Your task to perform on an android device: Clear the shopping cart on target.com. Add "asus zenbook" to the cart on target.com, then select checkout. Image 0: 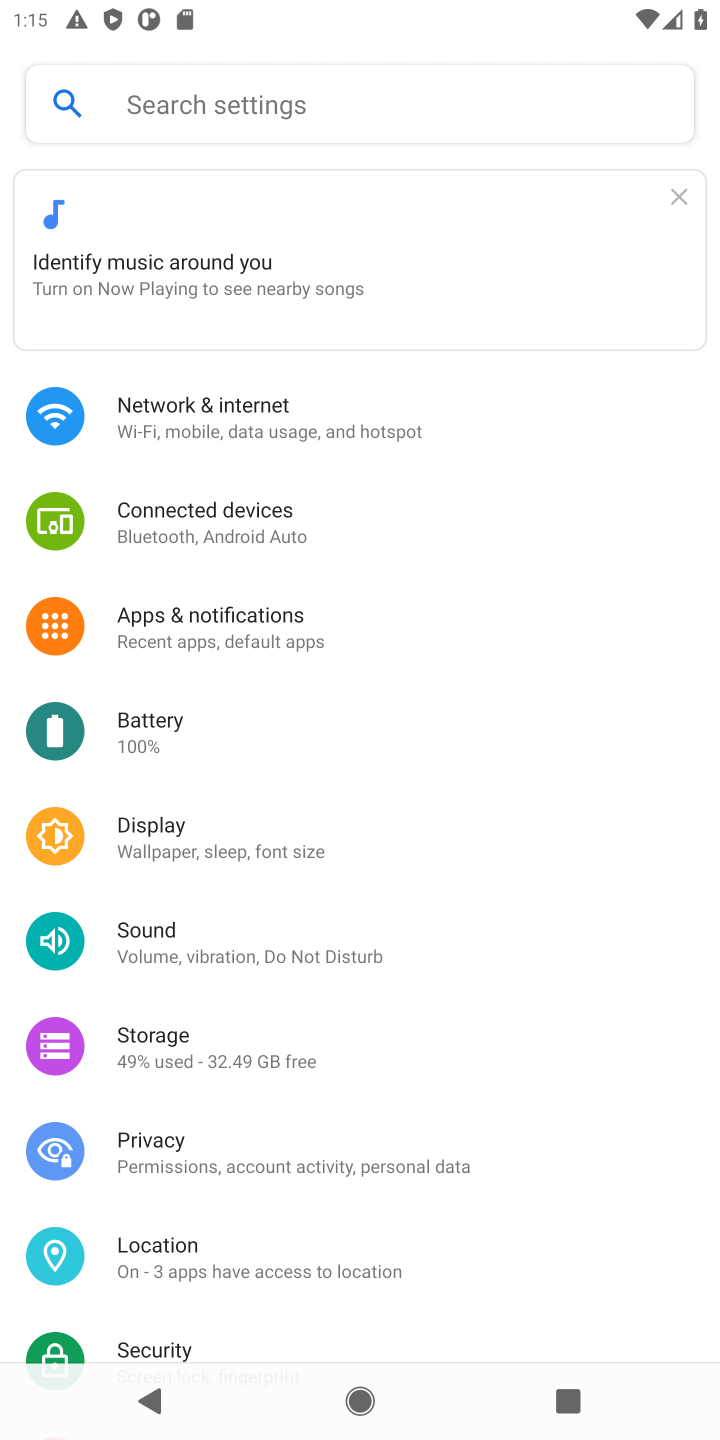
Step 0: press home button
Your task to perform on an android device: Clear the shopping cart on target.com. Add "asus zenbook" to the cart on target.com, then select checkout. Image 1: 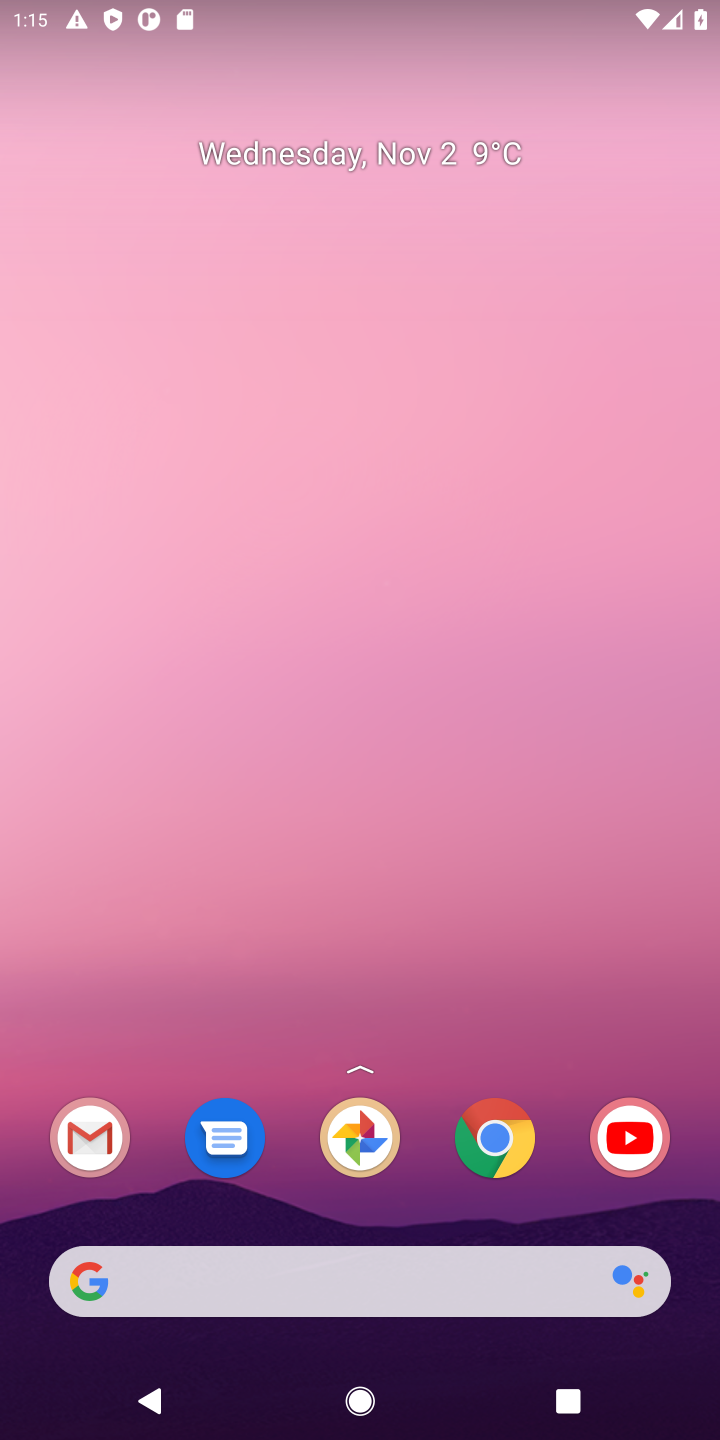
Step 1: click (512, 1144)
Your task to perform on an android device: Clear the shopping cart on target.com. Add "asus zenbook" to the cart on target.com, then select checkout. Image 2: 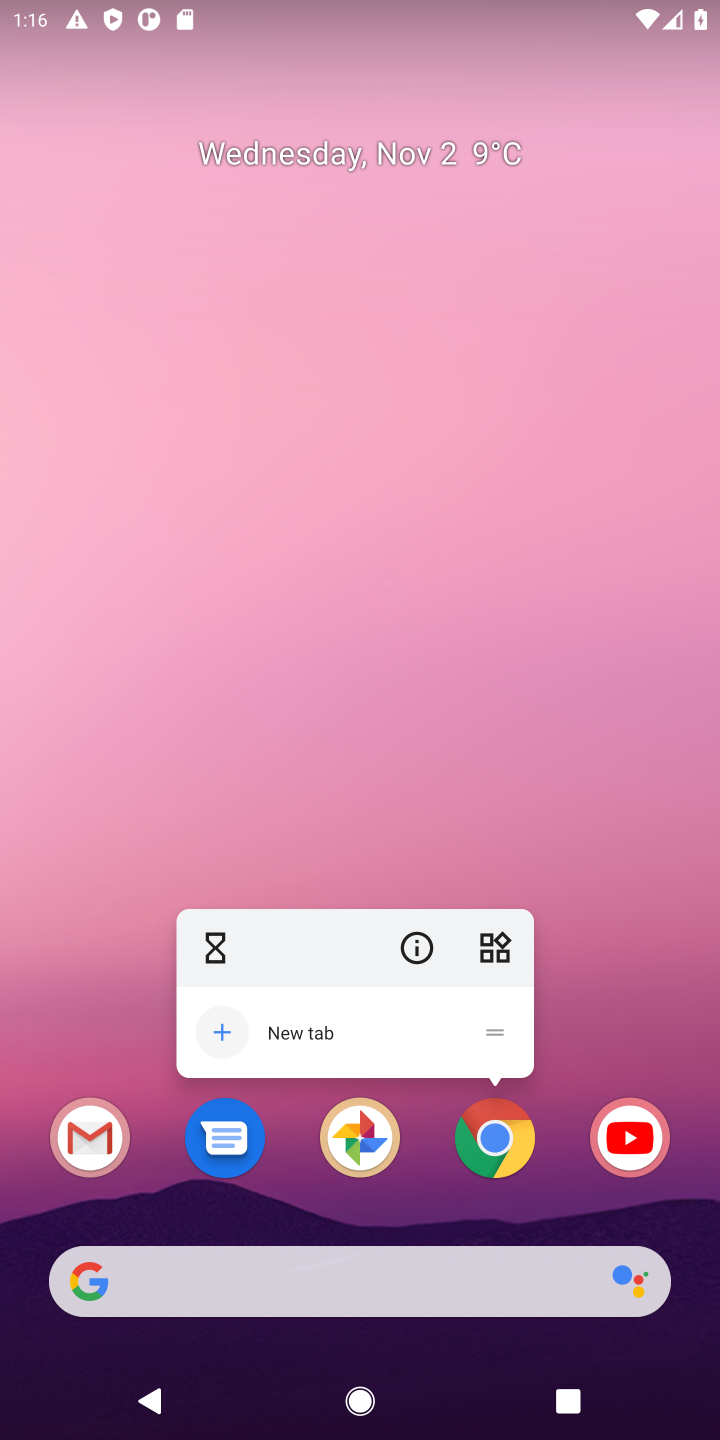
Step 2: click (498, 1158)
Your task to perform on an android device: Clear the shopping cart on target.com. Add "asus zenbook" to the cart on target.com, then select checkout. Image 3: 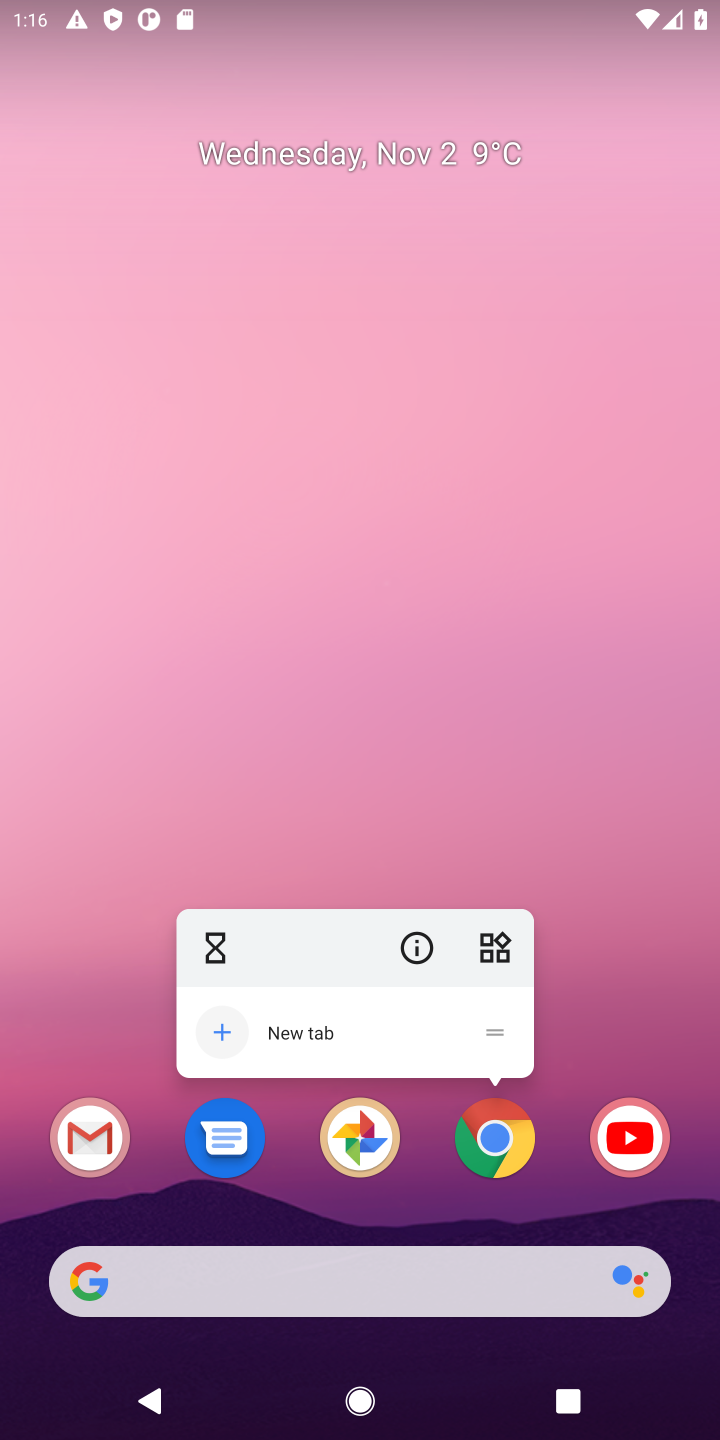
Step 3: click (498, 1124)
Your task to perform on an android device: Clear the shopping cart on target.com. Add "asus zenbook" to the cart on target.com, then select checkout. Image 4: 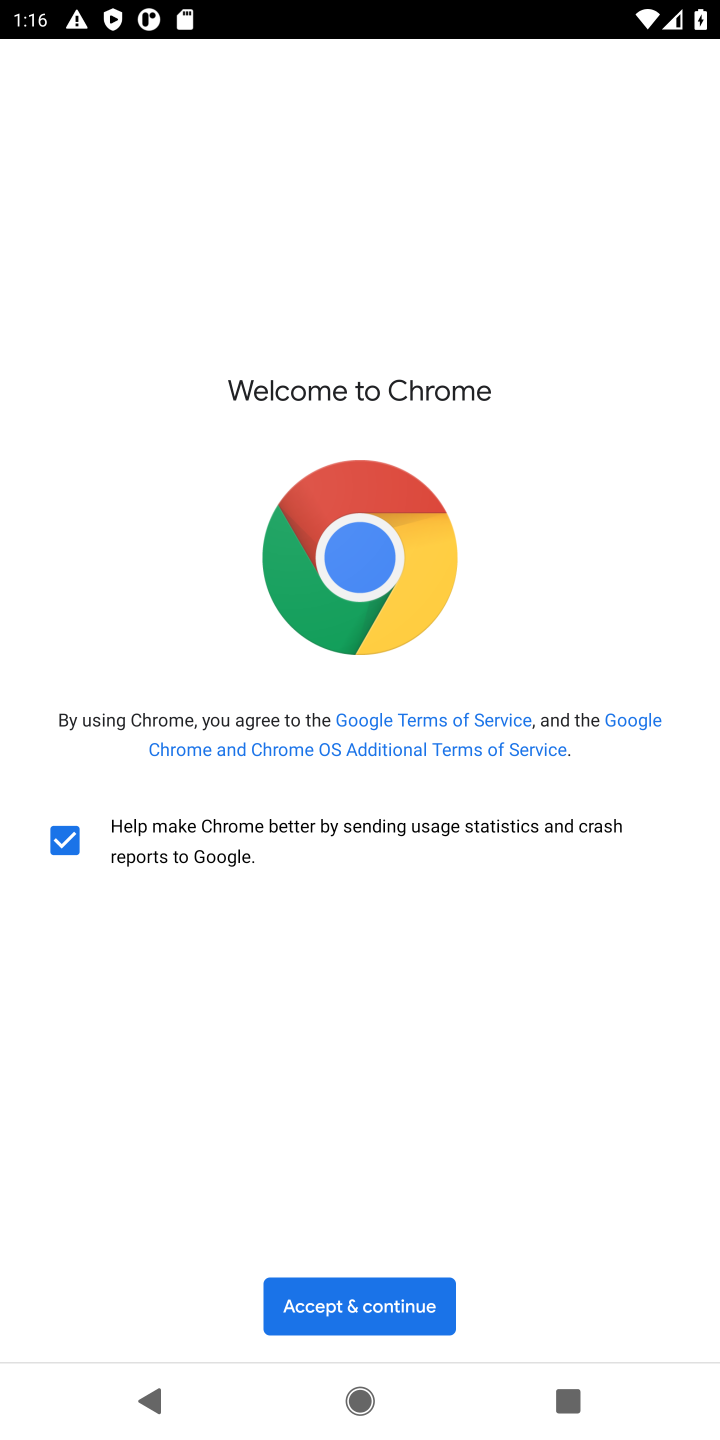
Step 4: click (332, 1291)
Your task to perform on an android device: Clear the shopping cart on target.com. Add "asus zenbook" to the cart on target.com, then select checkout. Image 5: 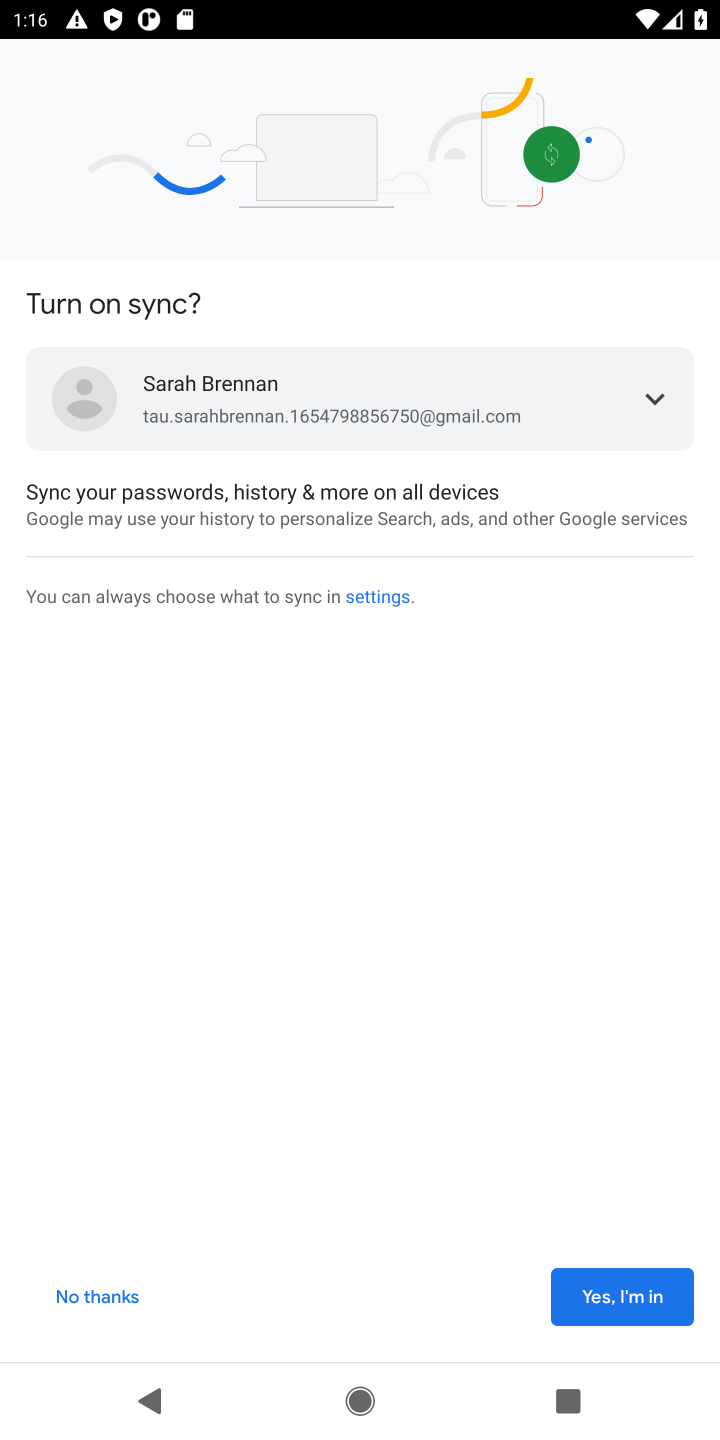
Step 5: click (621, 1301)
Your task to perform on an android device: Clear the shopping cart on target.com. Add "asus zenbook" to the cart on target.com, then select checkout. Image 6: 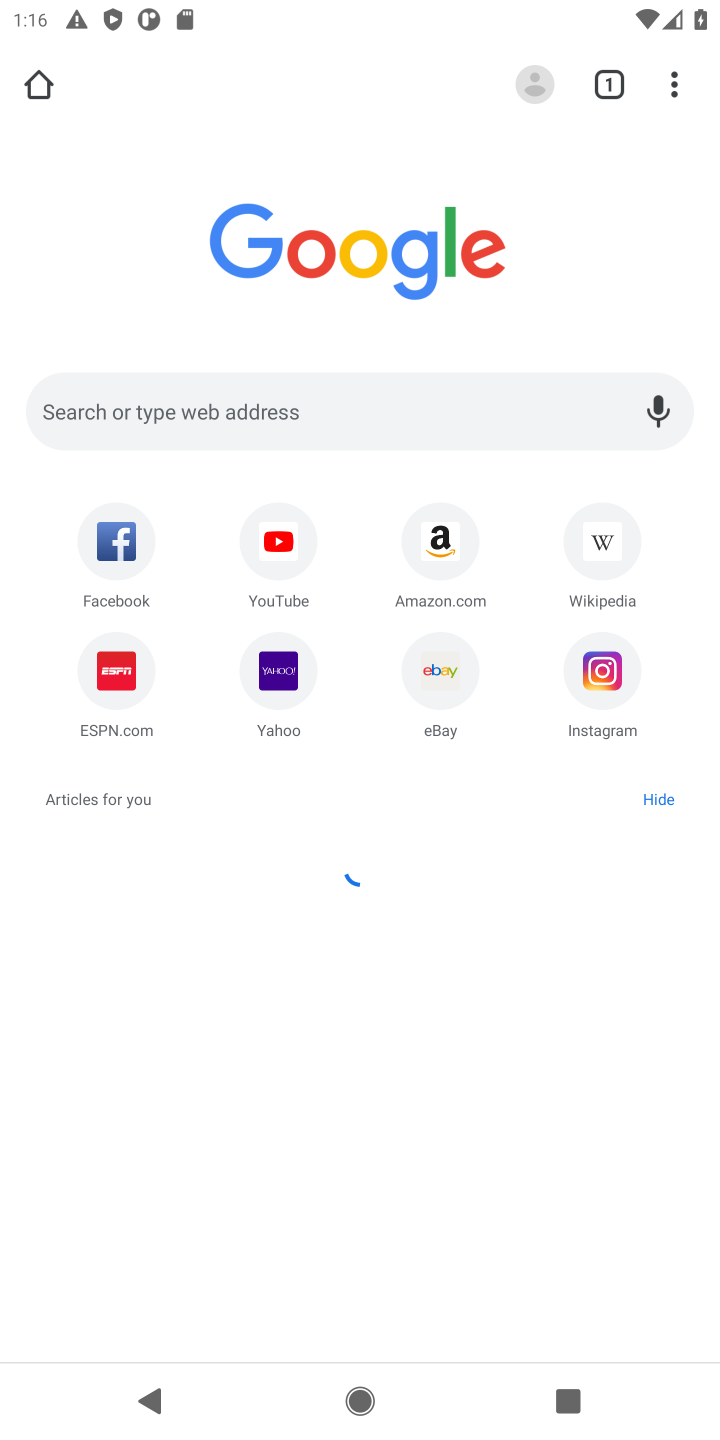
Step 6: click (436, 404)
Your task to perform on an android device: Clear the shopping cart on target.com. Add "asus zenbook" to the cart on target.com, then select checkout. Image 7: 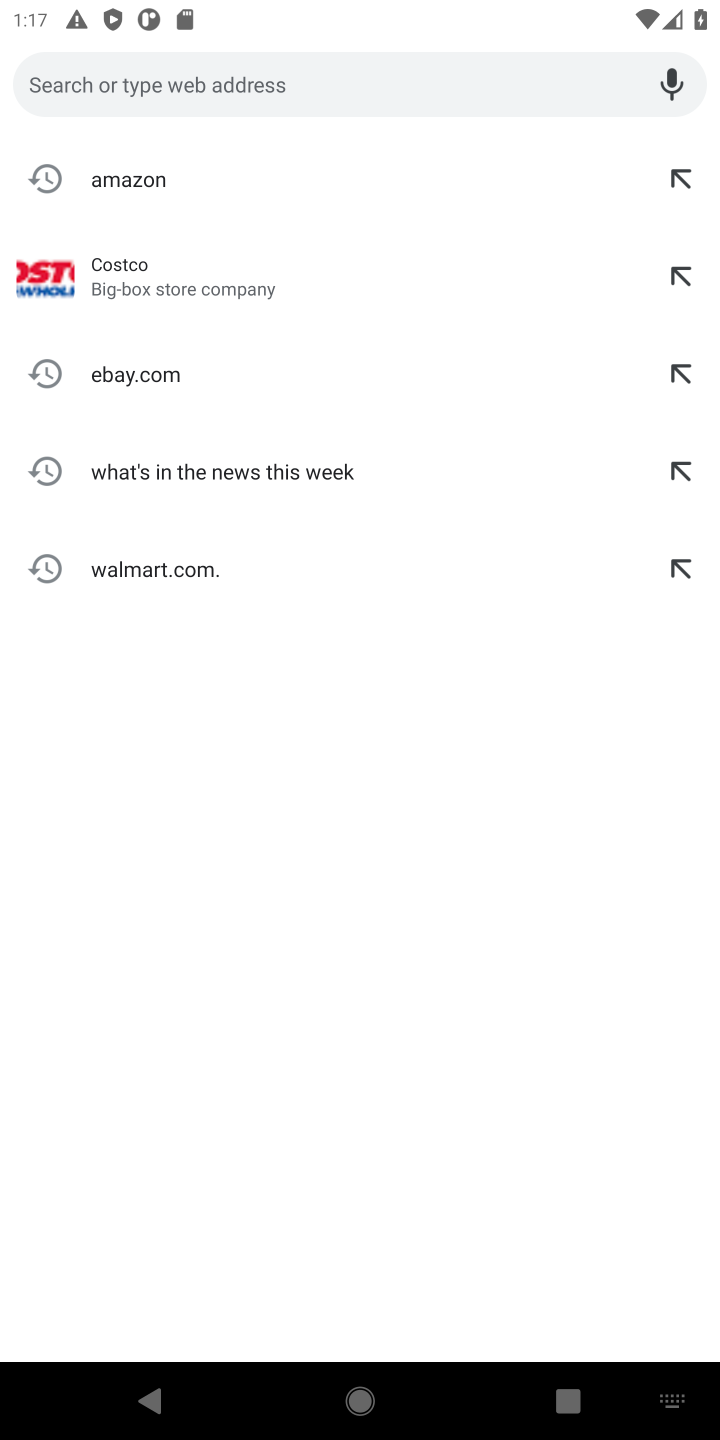
Step 7: type "target"
Your task to perform on an android device: Clear the shopping cart on target.com. Add "asus zenbook" to the cart on target.com, then select checkout. Image 8: 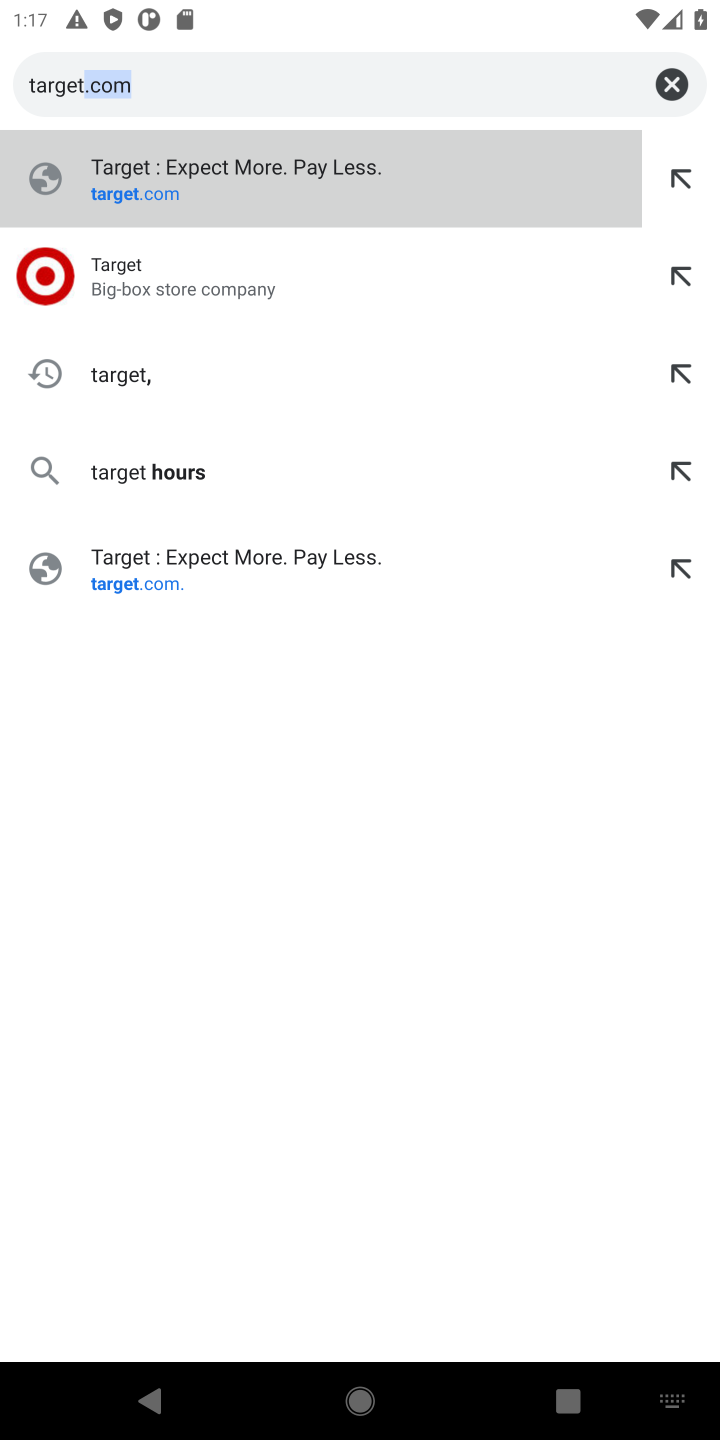
Step 8: click (348, 255)
Your task to perform on an android device: Clear the shopping cart on target.com. Add "asus zenbook" to the cart on target.com, then select checkout. Image 9: 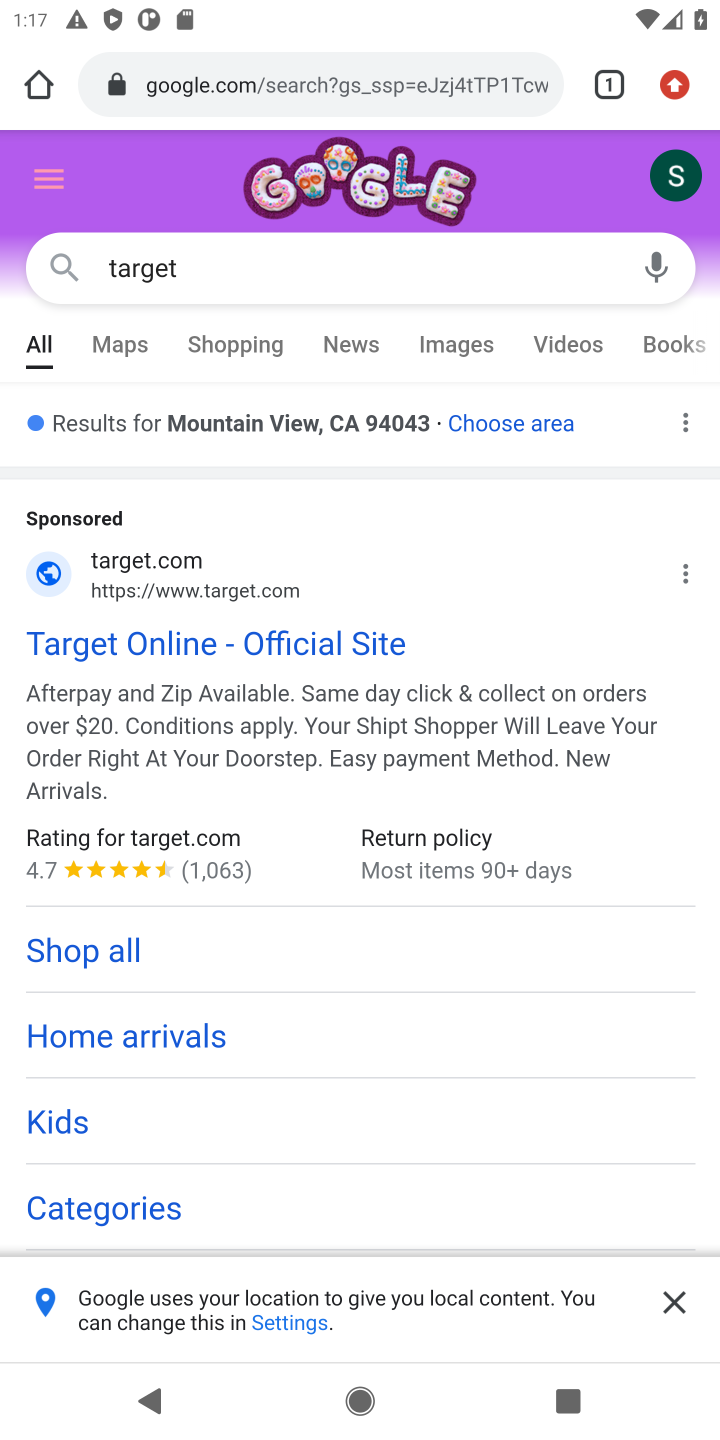
Step 9: click (210, 650)
Your task to perform on an android device: Clear the shopping cart on target.com. Add "asus zenbook" to the cart on target.com, then select checkout. Image 10: 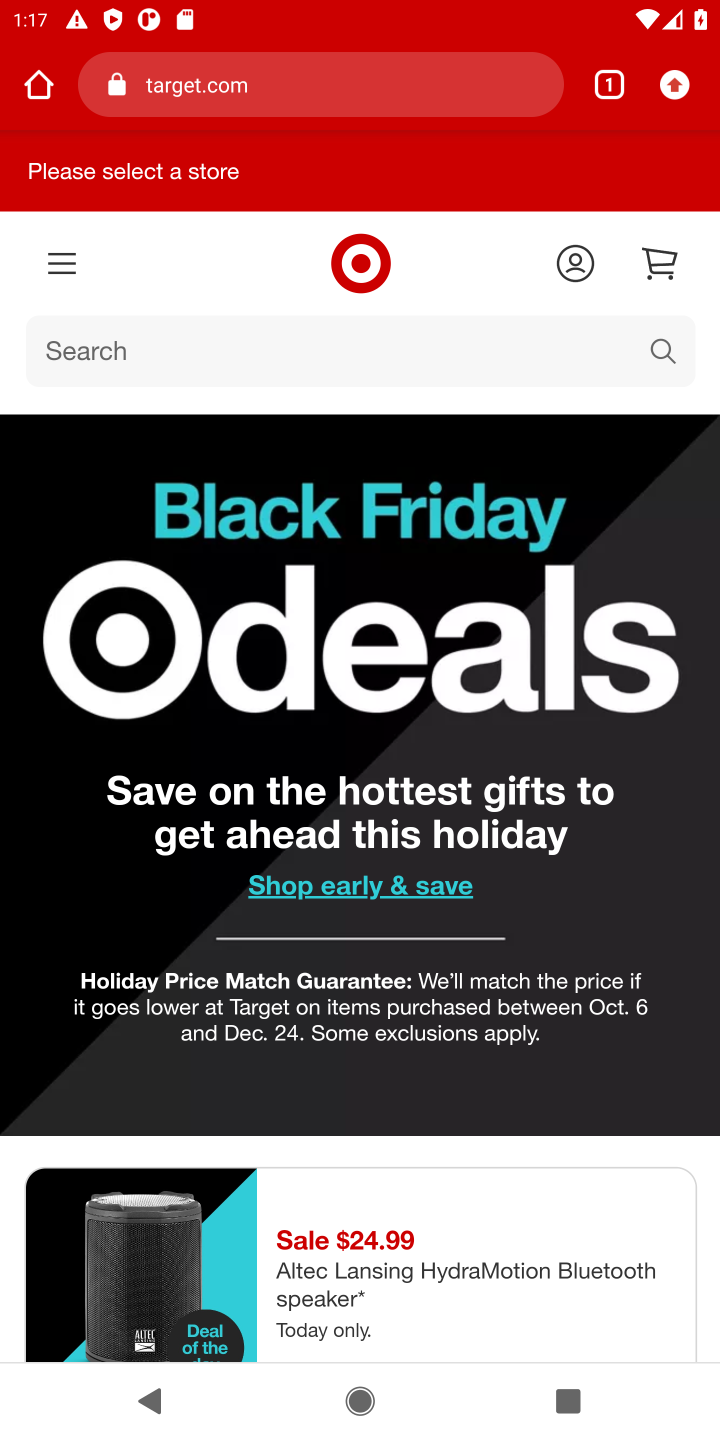
Step 10: click (265, 322)
Your task to perform on an android device: Clear the shopping cart on target.com. Add "asus zenbook" to the cart on target.com, then select checkout. Image 11: 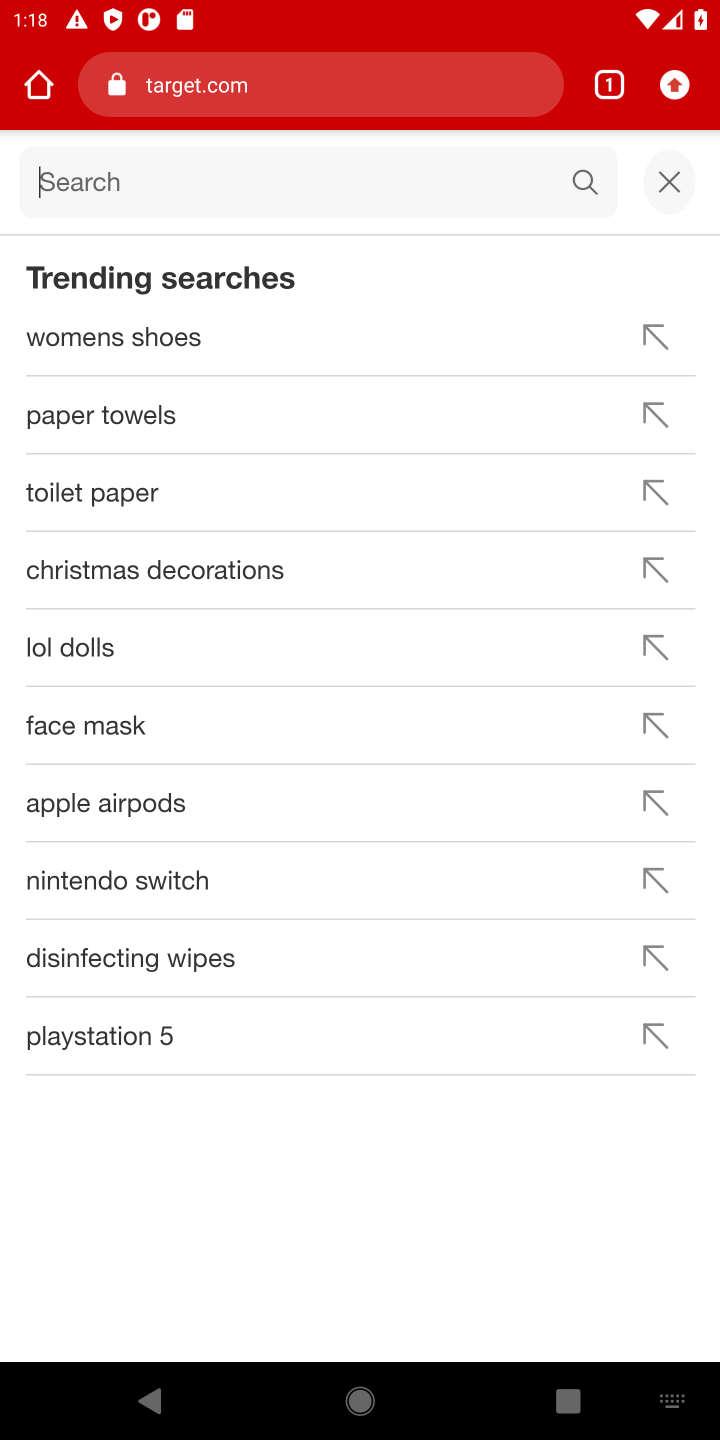
Step 11: type "asus zenbook"
Your task to perform on an android device: Clear the shopping cart on target.com. Add "asus zenbook" to the cart on target.com, then select checkout. Image 12: 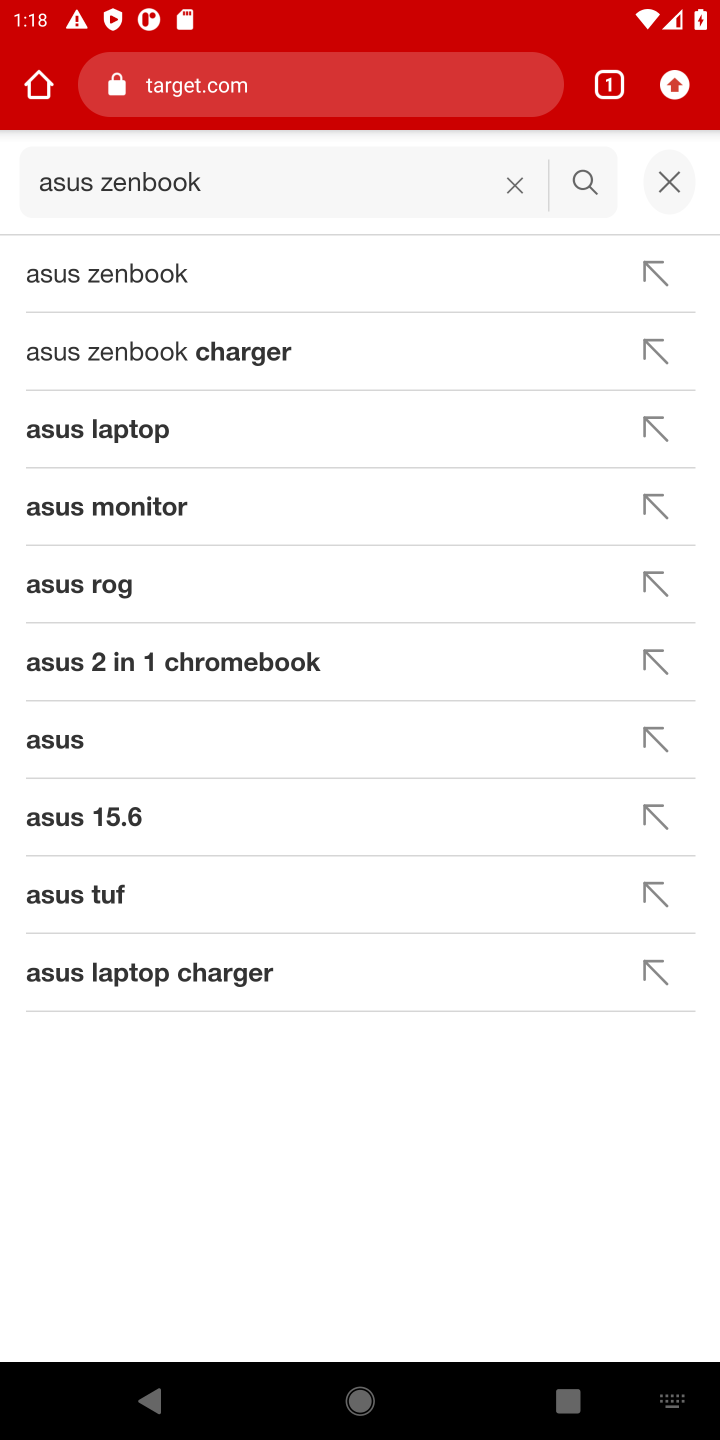
Step 12: click (591, 202)
Your task to perform on an android device: Clear the shopping cart on target.com. Add "asus zenbook" to the cart on target.com, then select checkout. Image 13: 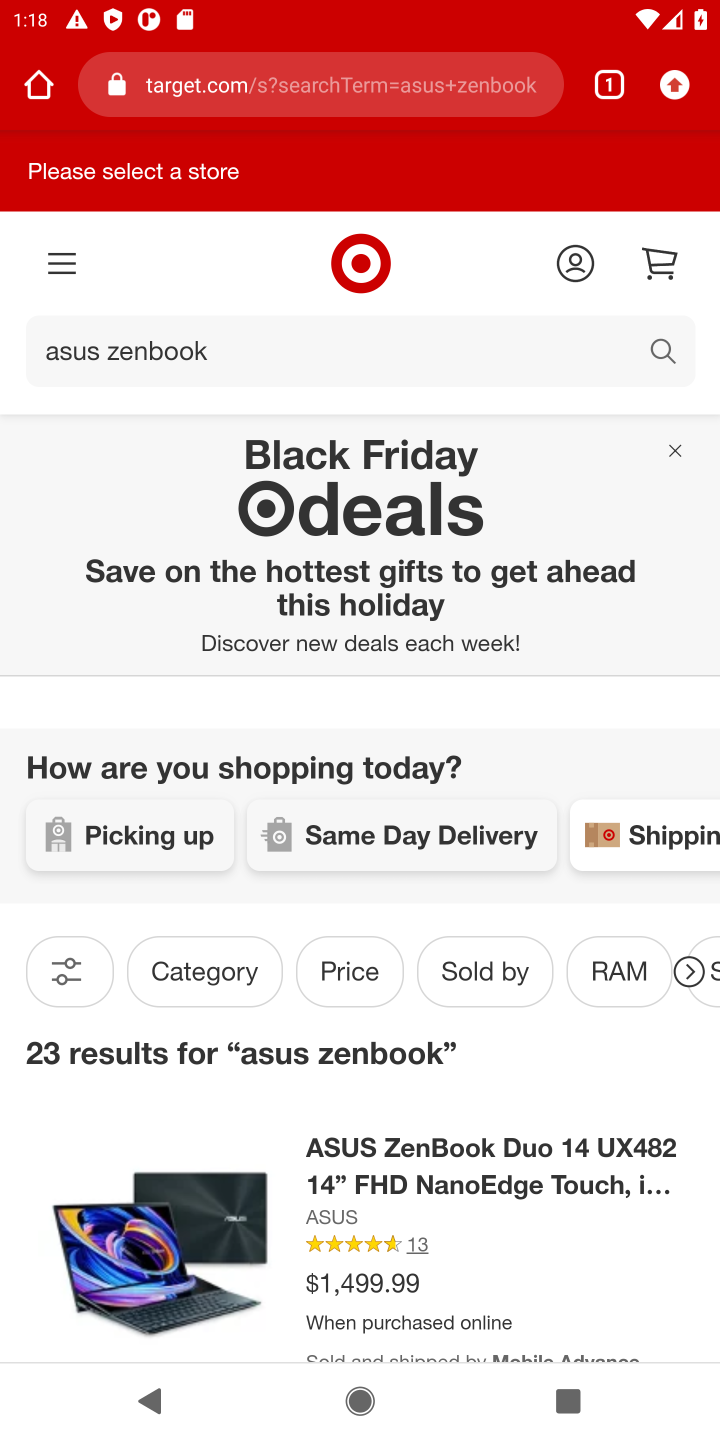
Step 13: click (490, 1190)
Your task to perform on an android device: Clear the shopping cart on target.com. Add "asus zenbook" to the cart on target.com, then select checkout. Image 14: 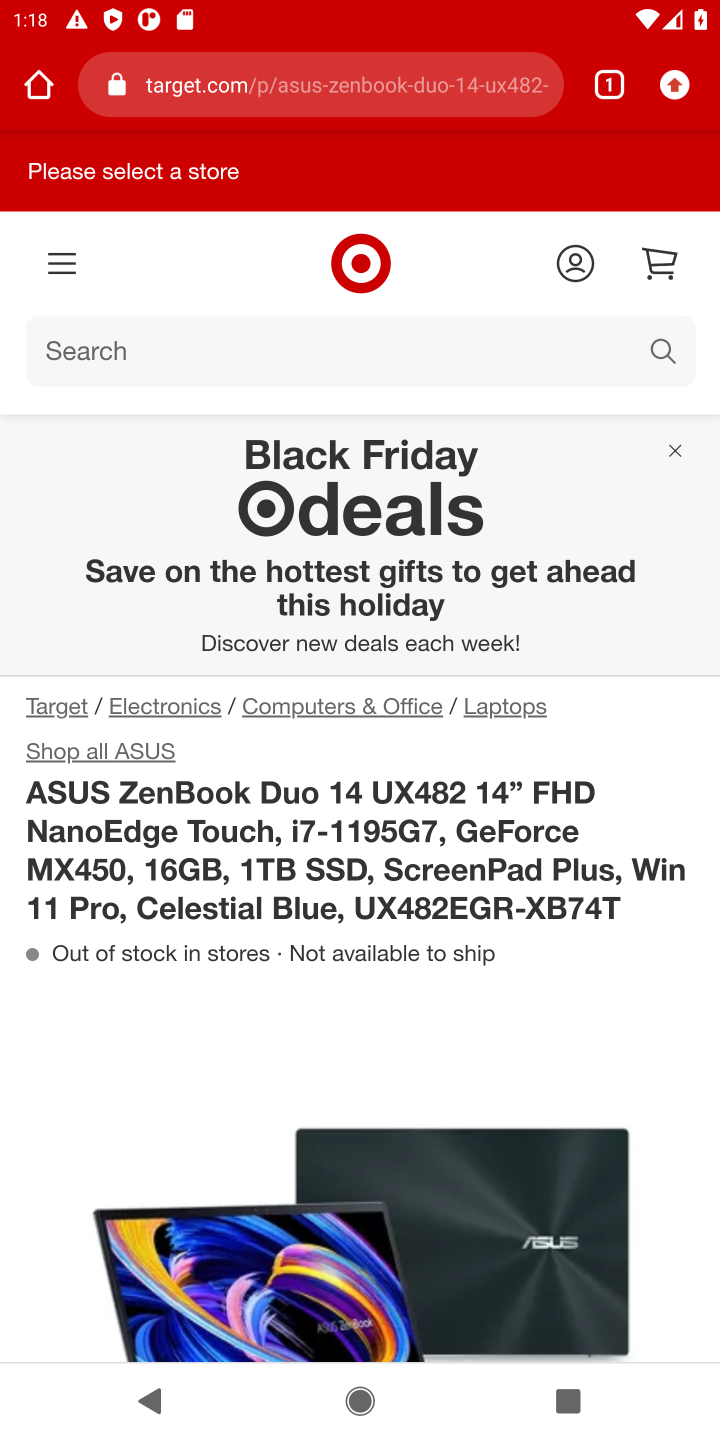
Step 14: drag from (479, 1046) to (448, 326)
Your task to perform on an android device: Clear the shopping cart on target.com. Add "asus zenbook" to the cart on target.com, then select checkout. Image 15: 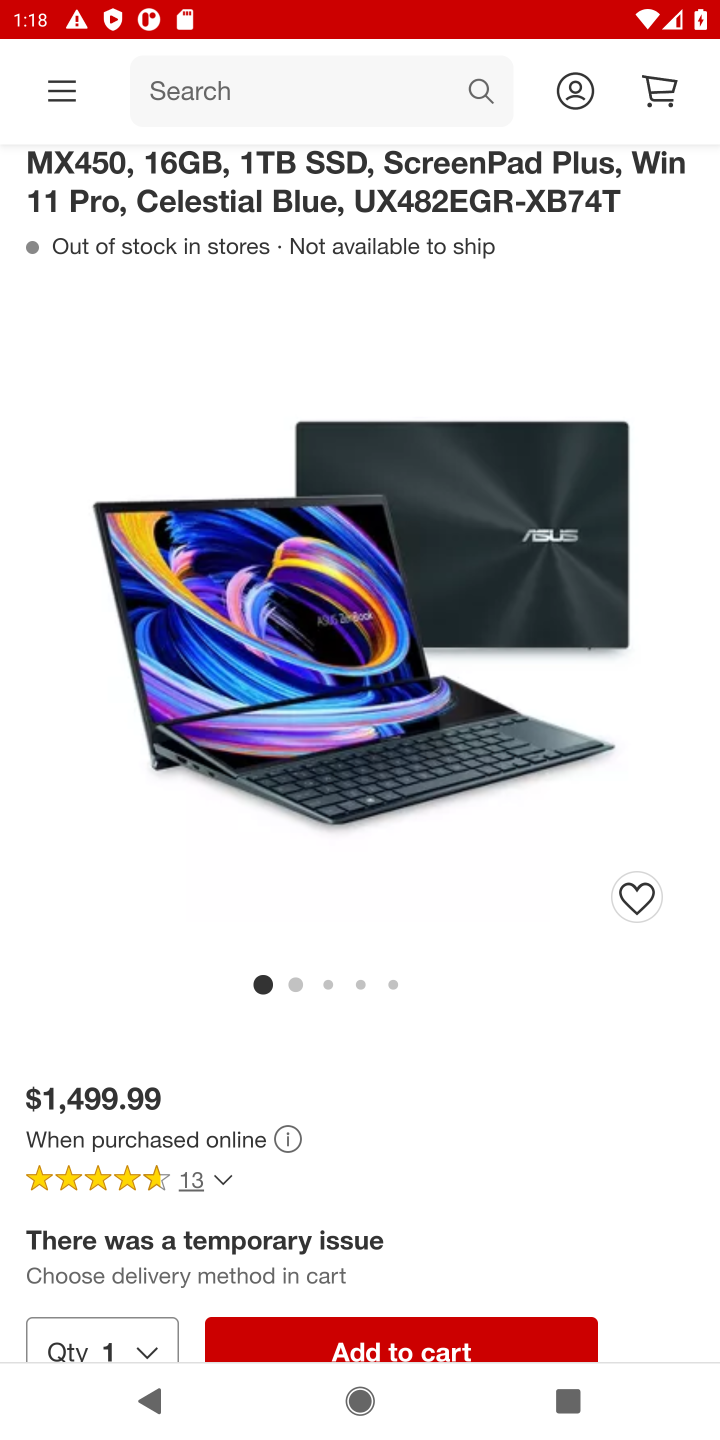
Step 15: press back button
Your task to perform on an android device: Clear the shopping cart on target.com. Add "asus zenbook" to the cart on target.com, then select checkout. Image 16: 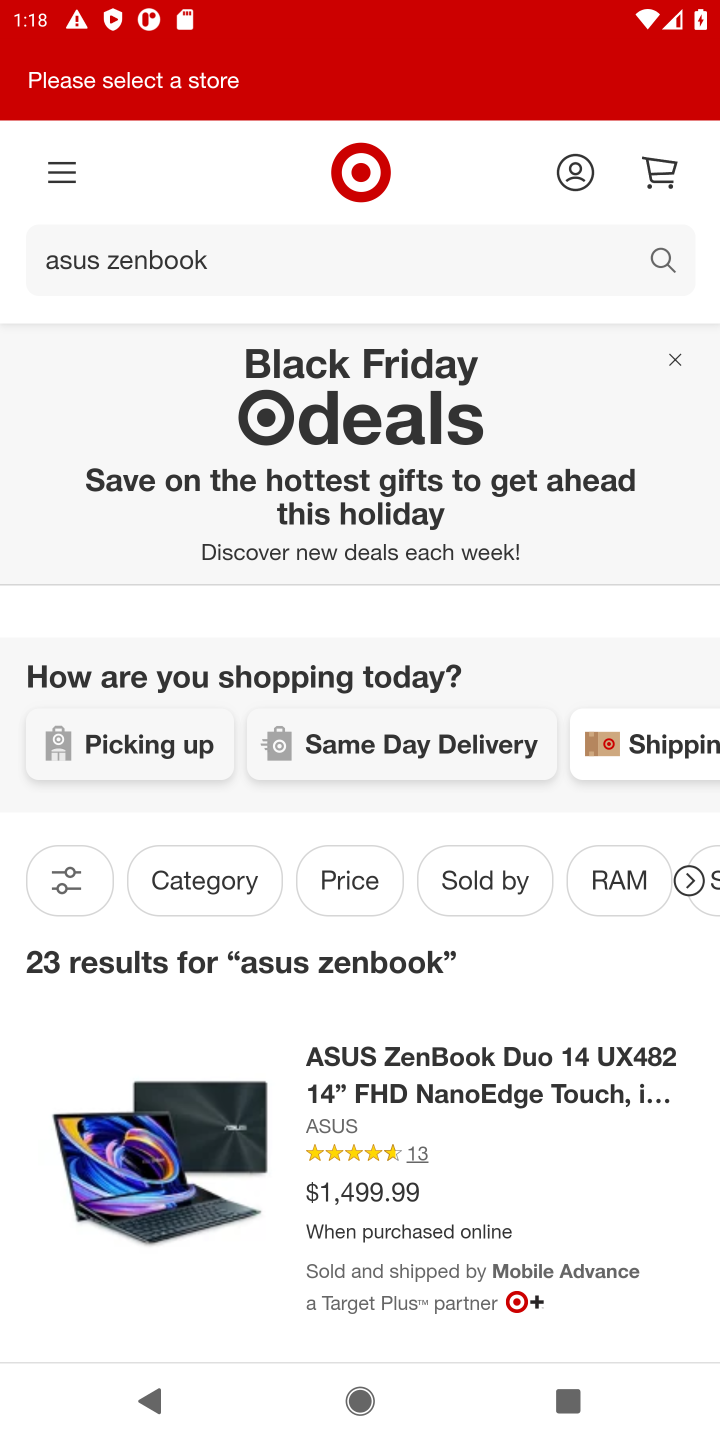
Step 16: drag from (498, 1205) to (500, 459)
Your task to perform on an android device: Clear the shopping cart on target.com. Add "asus zenbook" to the cart on target.com, then select checkout. Image 17: 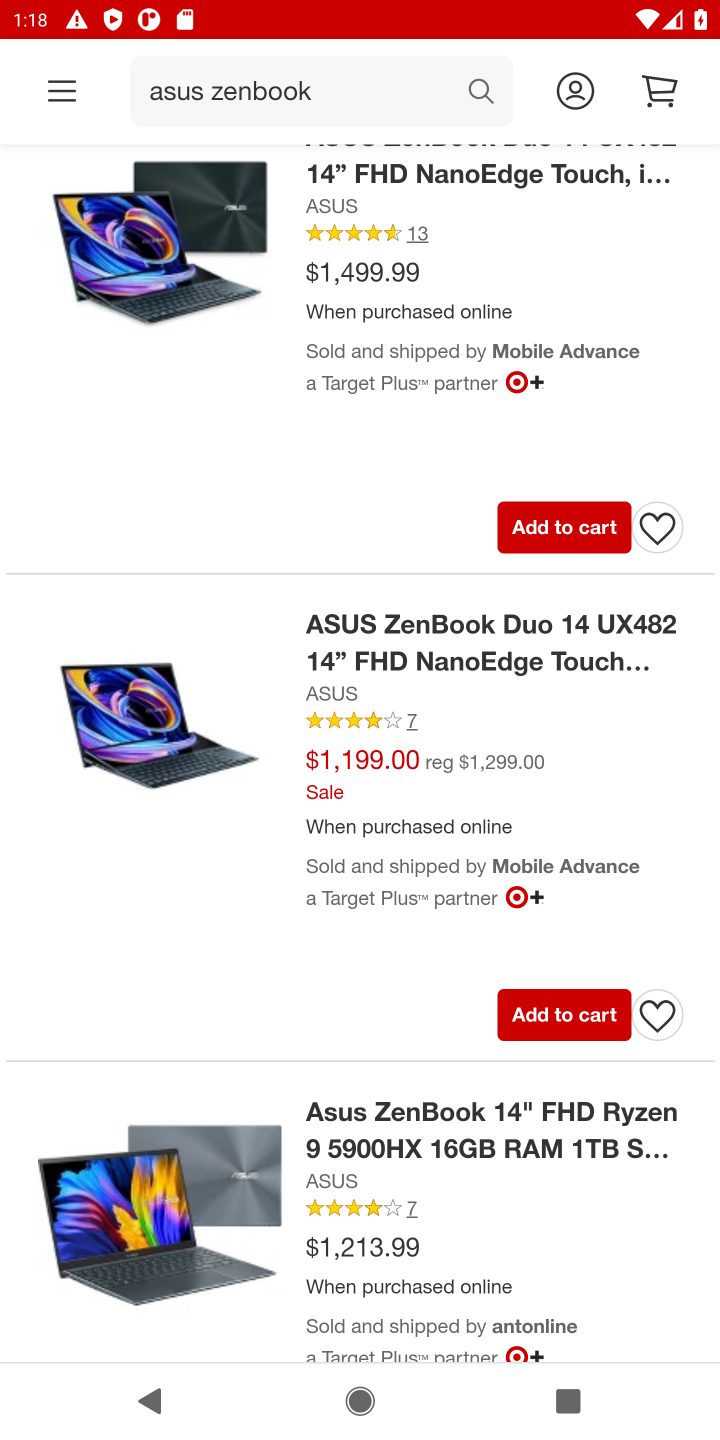
Step 17: click (546, 515)
Your task to perform on an android device: Clear the shopping cart on target.com. Add "asus zenbook" to the cart on target.com, then select checkout. Image 18: 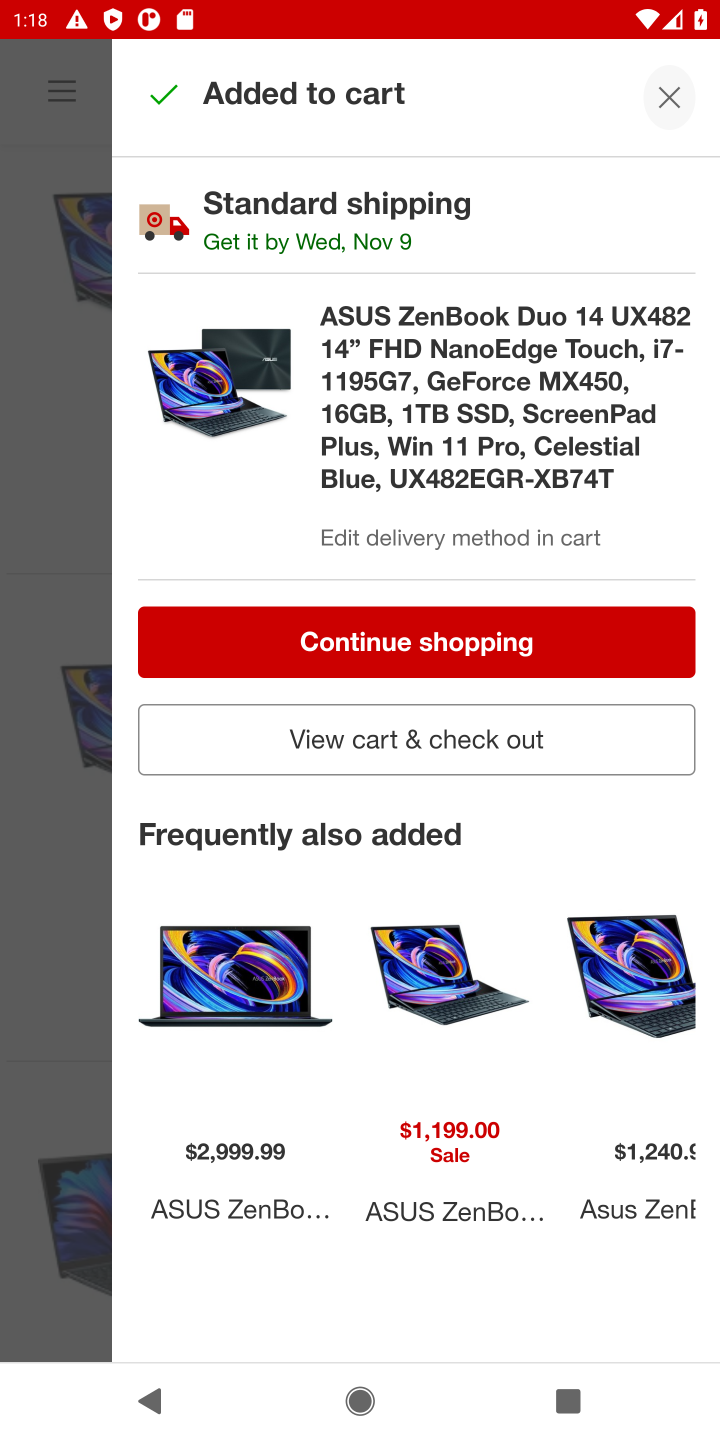
Step 18: click (419, 731)
Your task to perform on an android device: Clear the shopping cart on target.com. Add "asus zenbook" to the cart on target.com, then select checkout. Image 19: 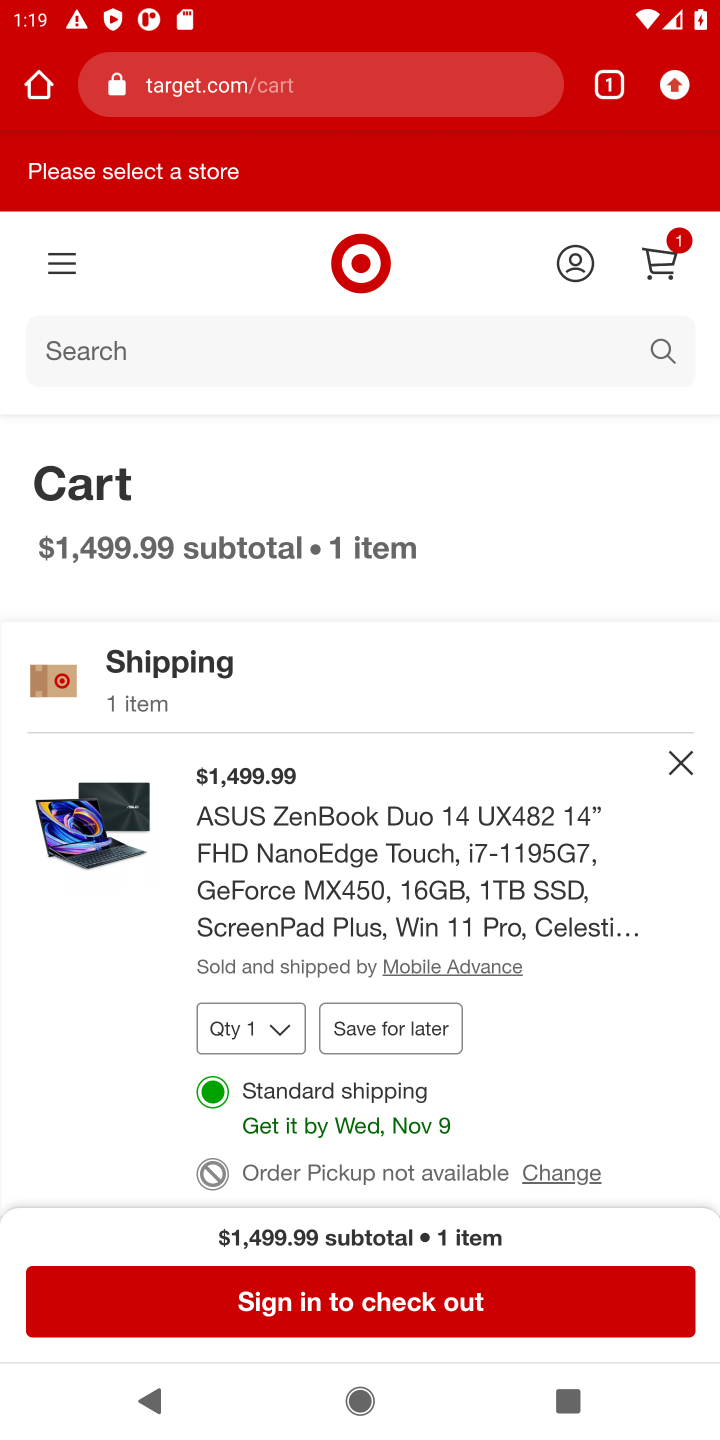
Step 19: task complete